Your task to perform on an android device: check the backup settings in the google photos Image 0: 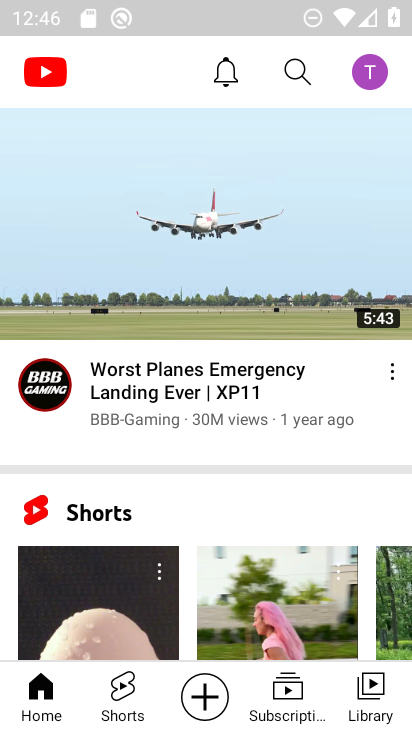
Step 0: press home button
Your task to perform on an android device: check the backup settings in the google photos Image 1: 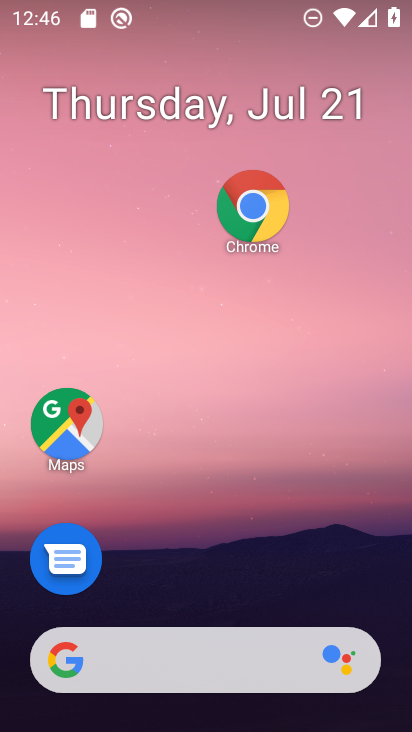
Step 1: drag from (258, 638) to (354, 272)
Your task to perform on an android device: check the backup settings in the google photos Image 2: 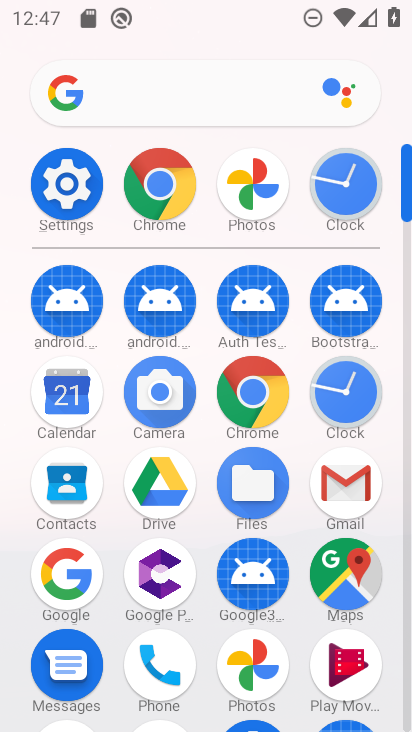
Step 2: drag from (236, 459) to (270, 169)
Your task to perform on an android device: check the backup settings in the google photos Image 3: 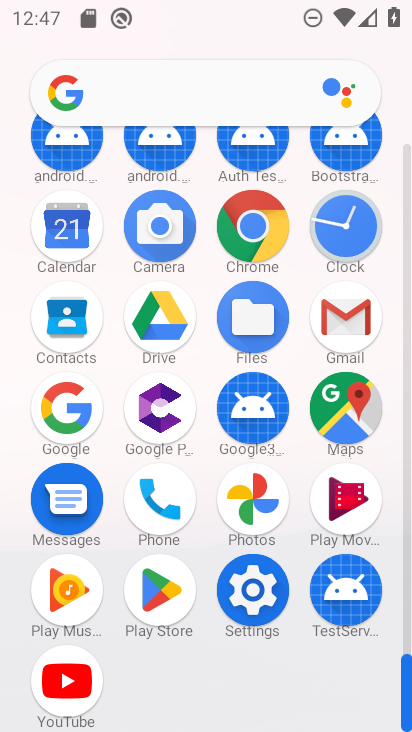
Step 3: click (252, 520)
Your task to perform on an android device: check the backup settings in the google photos Image 4: 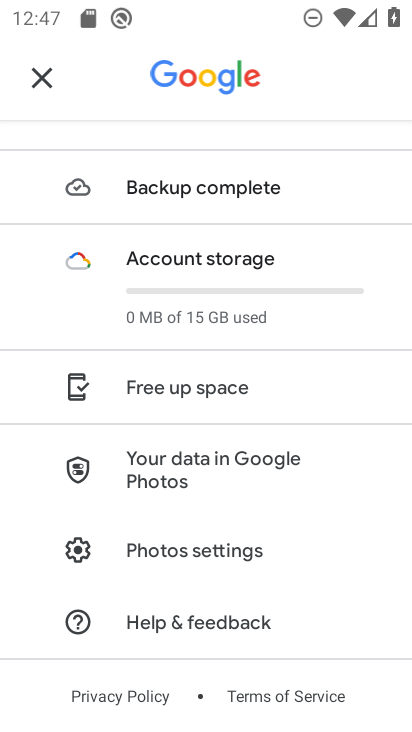
Step 4: click (206, 544)
Your task to perform on an android device: check the backup settings in the google photos Image 5: 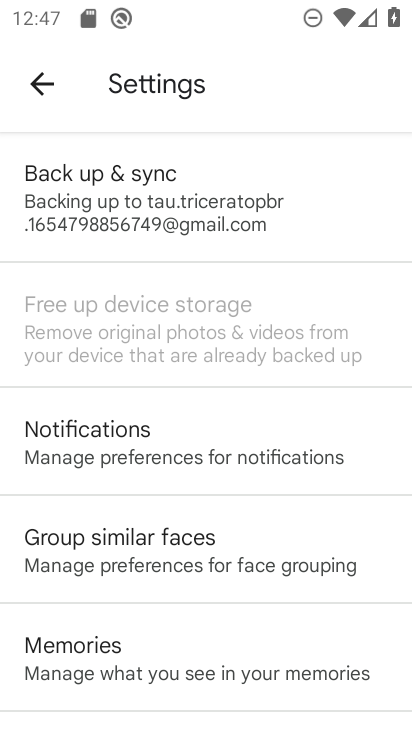
Step 5: click (208, 185)
Your task to perform on an android device: check the backup settings in the google photos Image 6: 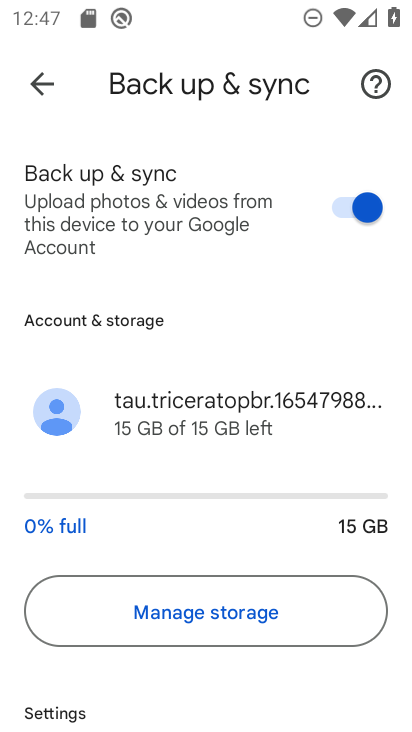
Step 6: task complete